Your task to perform on an android device: Search for Italian restaurants on Maps Image 0: 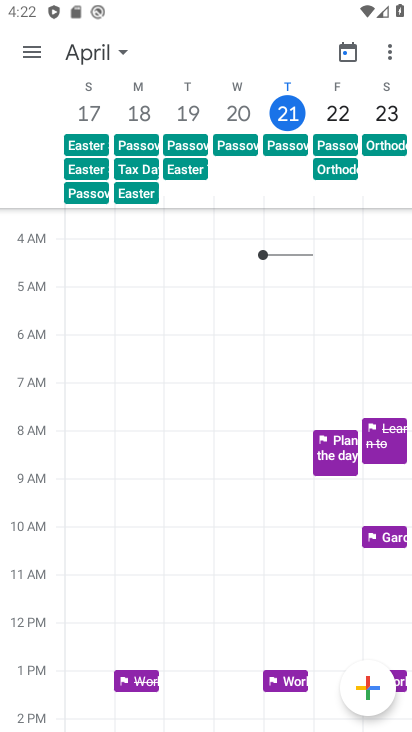
Step 0: press back button
Your task to perform on an android device: Search for Italian restaurants on Maps Image 1: 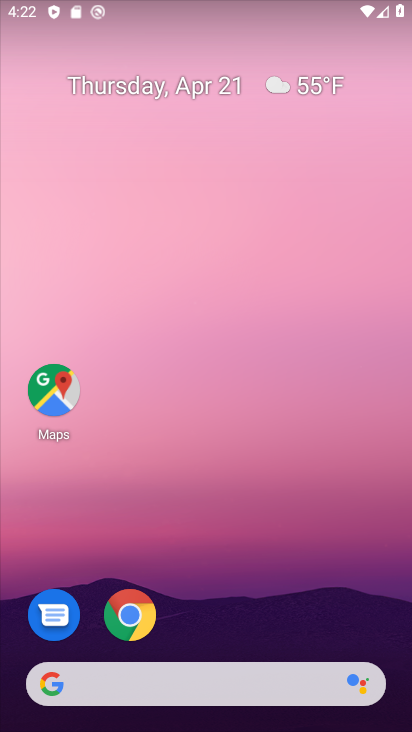
Step 1: drag from (289, 581) to (256, 40)
Your task to perform on an android device: Search for Italian restaurants on Maps Image 2: 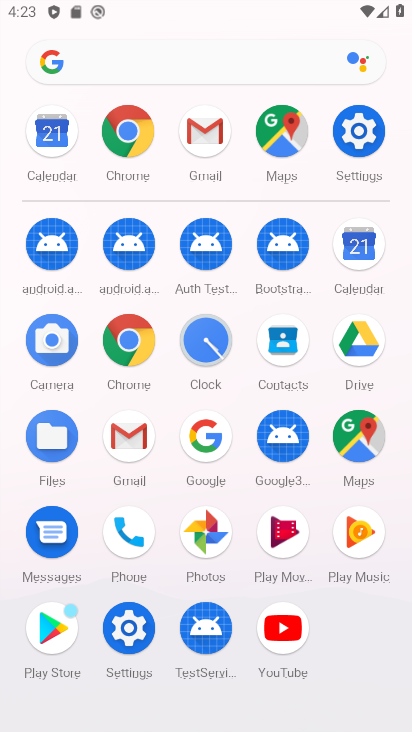
Step 2: drag from (12, 577) to (12, 406)
Your task to perform on an android device: Search for Italian restaurants on Maps Image 3: 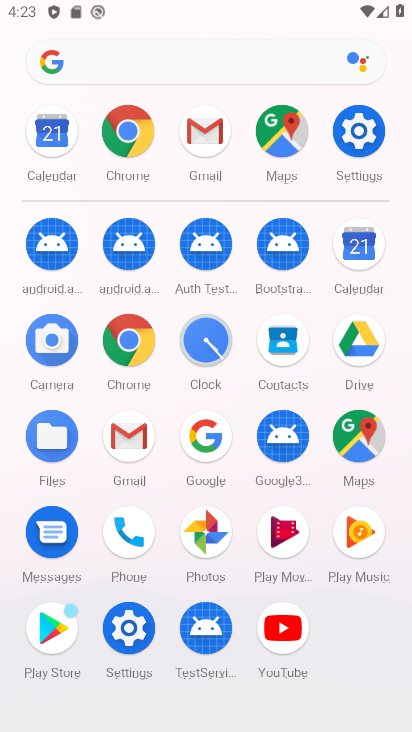
Step 3: click (363, 451)
Your task to perform on an android device: Search for Italian restaurants on Maps Image 4: 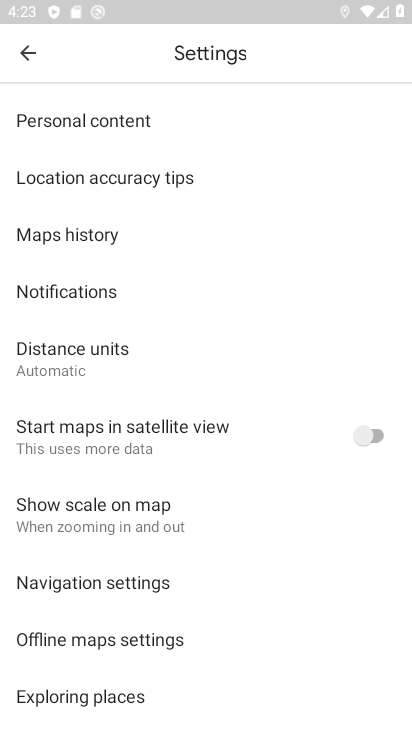
Step 4: click (33, 57)
Your task to perform on an android device: Search for Italian restaurants on Maps Image 5: 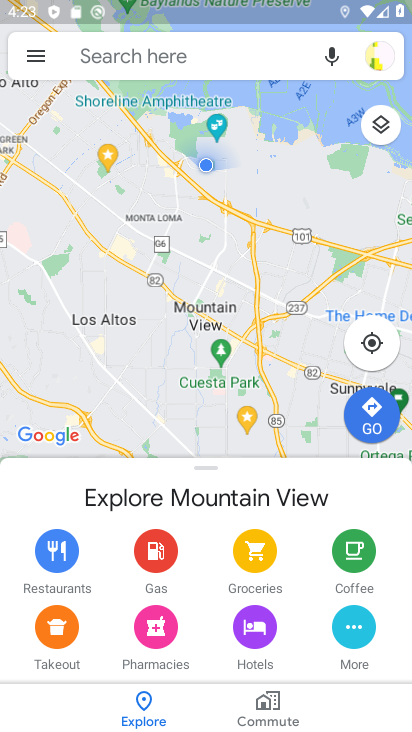
Step 5: click (250, 51)
Your task to perform on an android device: Search for Italian restaurants on Maps Image 6: 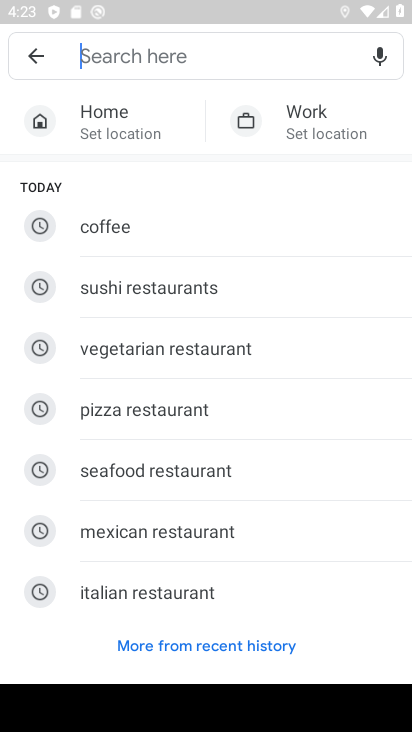
Step 6: click (193, 584)
Your task to perform on an android device: Search for Italian restaurants on Maps Image 7: 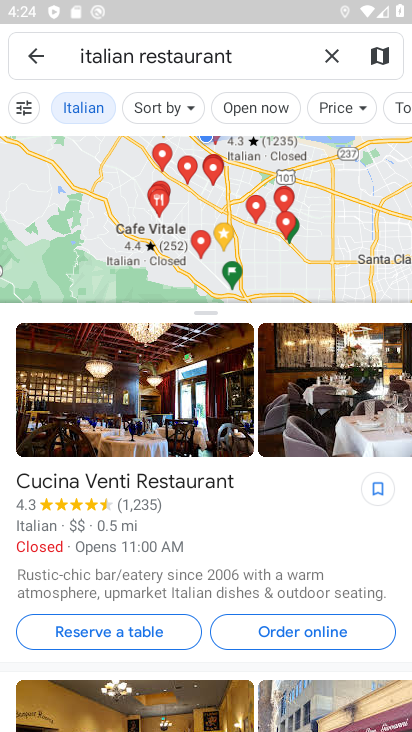
Step 7: task complete